Your task to perform on an android device: check the backup settings in the google photos Image 0: 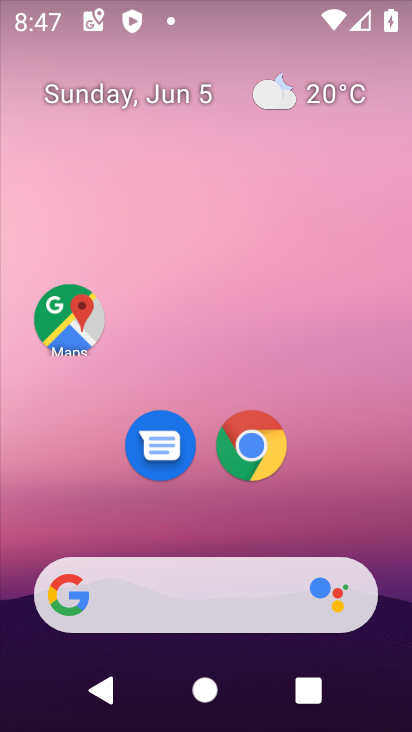
Step 0: drag from (265, 604) to (307, 5)
Your task to perform on an android device: check the backup settings in the google photos Image 1: 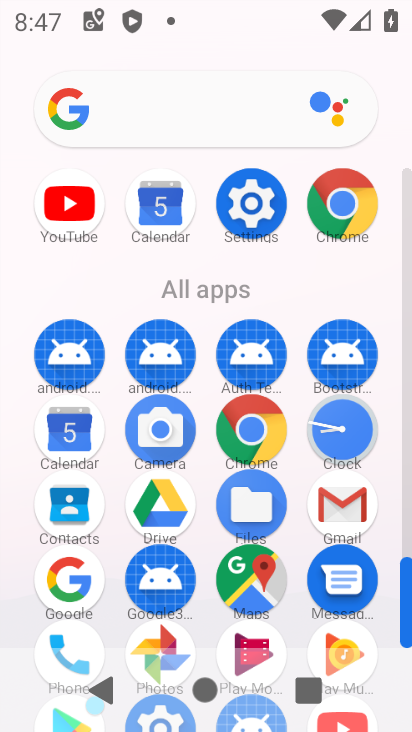
Step 1: drag from (299, 596) to (309, 373)
Your task to perform on an android device: check the backup settings in the google photos Image 2: 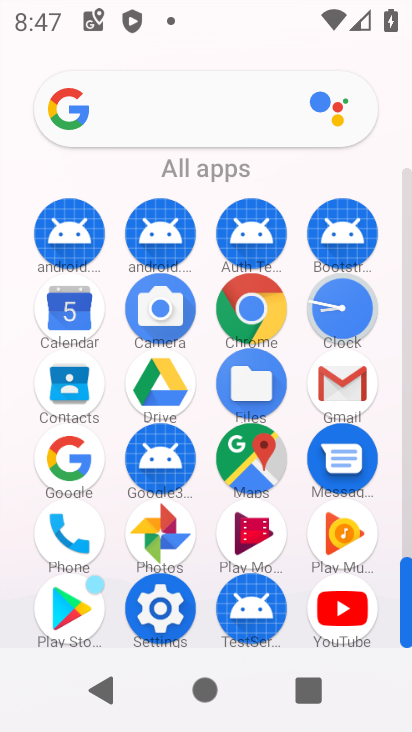
Step 2: click (175, 548)
Your task to perform on an android device: check the backup settings in the google photos Image 3: 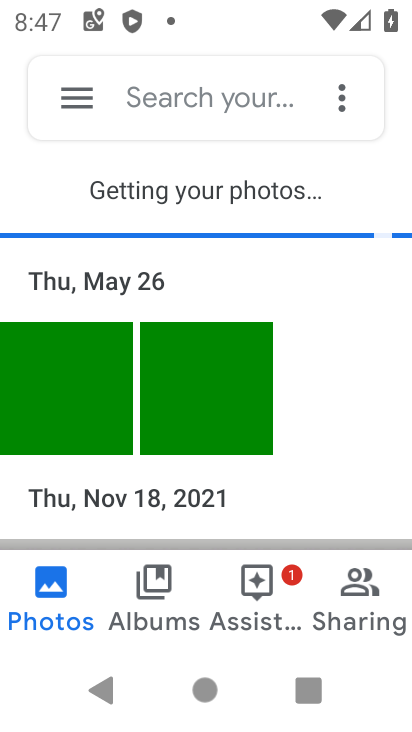
Step 3: click (84, 101)
Your task to perform on an android device: check the backup settings in the google photos Image 4: 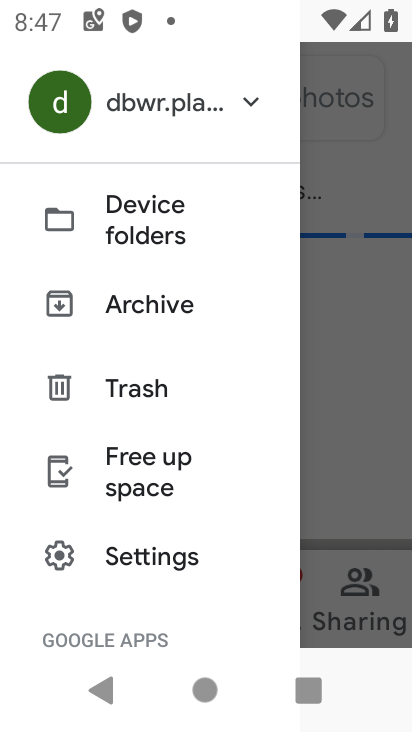
Step 4: click (163, 574)
Your task to perform on an android device: check the backup settings in the google photos Image 5: 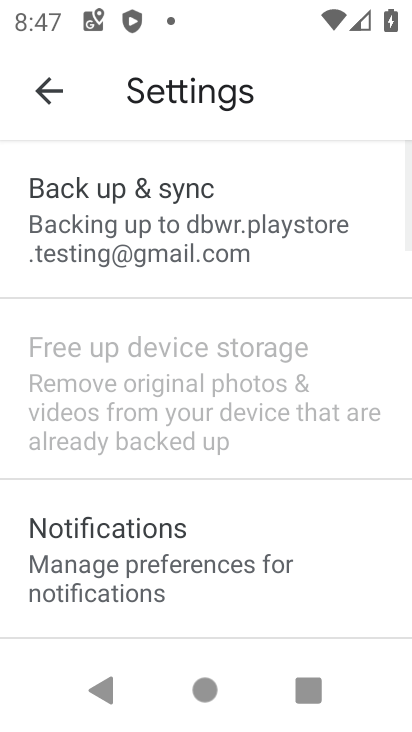
Step 5: click (199, 226)
Your task to perform on an android device: check the backup settings in the google photos Image 6: 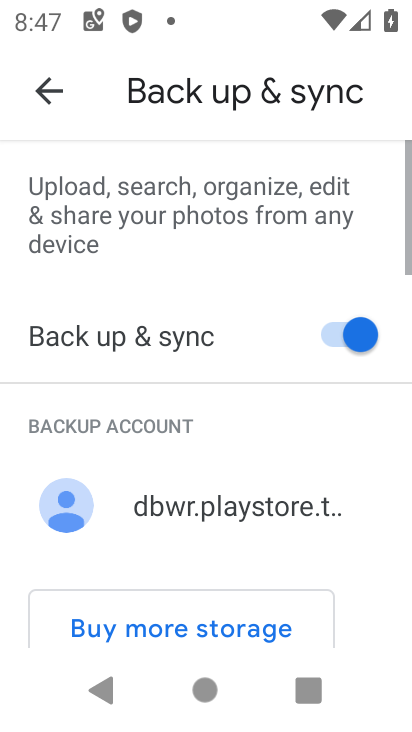
Step 6: task complete